Your task to perform on an android device: Search for Mexican restaurants on Maps Image 0: 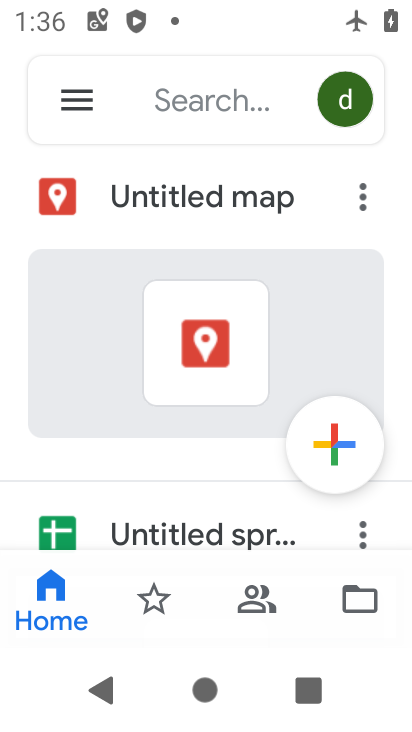
Step 0: press home button
Your task to perform on an android device: Search for Mexican restaurants on Maps Image 1: 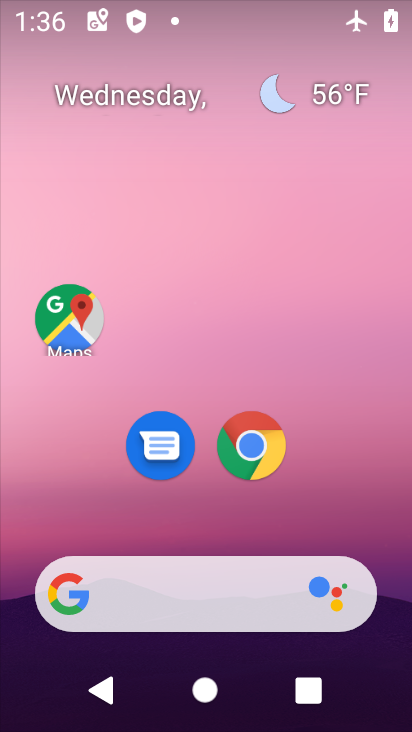
Step 1: click (82, 325)
Your task to perform on an android device: Search for Mexican restaurants on Maps Image 2: 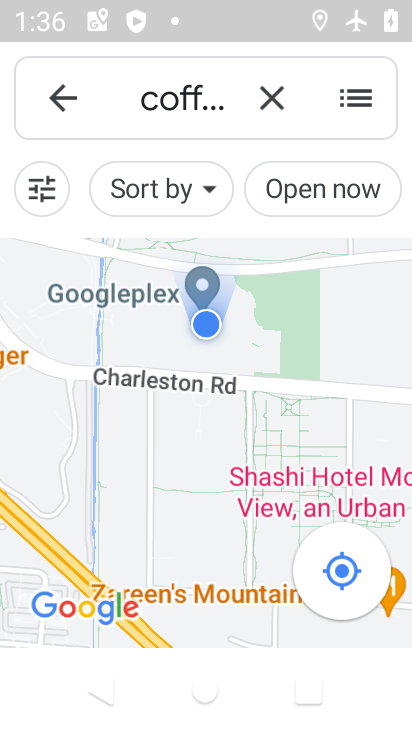
Step 2: click (276, 97)
Your task to perform on an android device: Search for Mexican restaurants on Maps Image 3: 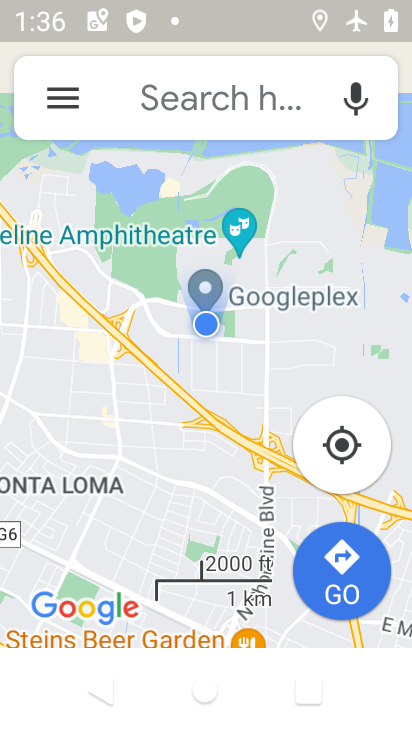
Step 3: click (179, 110)
Your task to perform on an android device: Search for Mexican restaurants on Maps Image 4: 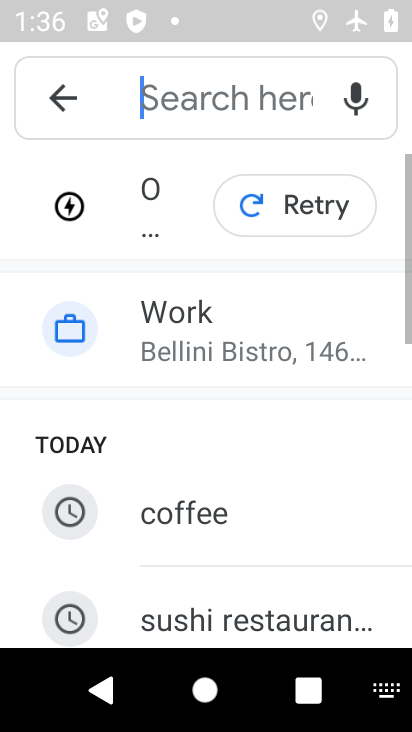
Step 4: drag from (238, 517) to (162, 128)
Your task to perform on an android device: Search for Mexican restaurants on Maps Image 5: 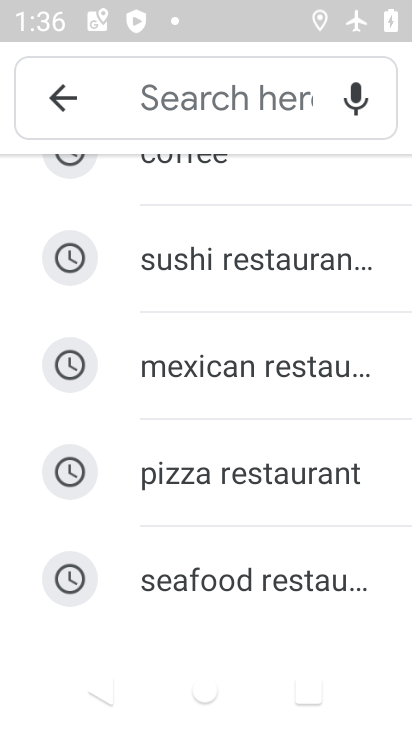
Step 5: click (170, 386)
Your task to perform on an android device: Search for Mexican restaurants on Maps Image 6: 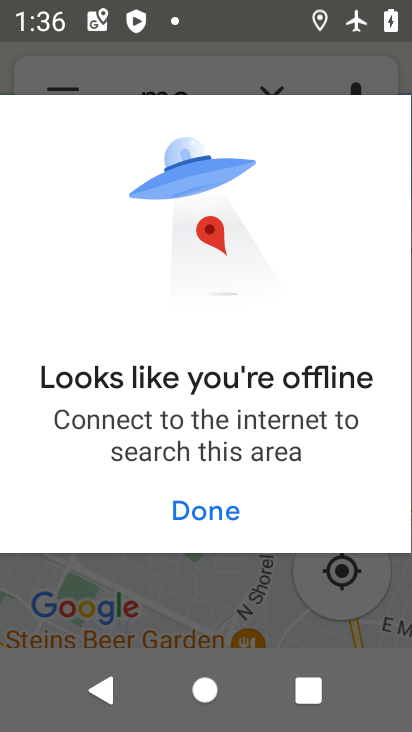
Step 6: click (208, 508)
Your task to perform on an android device: Search for Mexican restaurants on Maps Image 7: 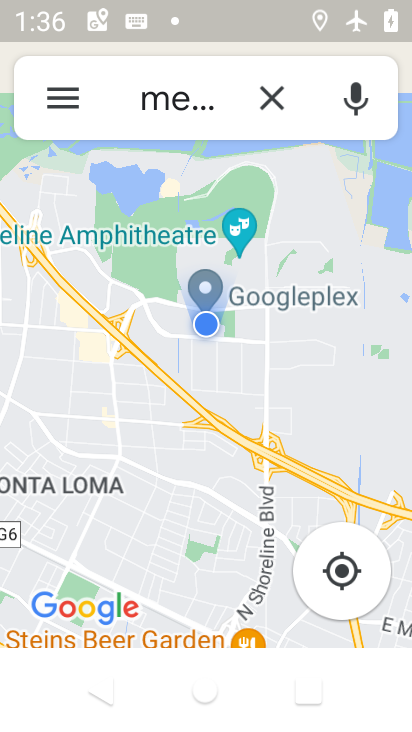
Step 7: task complete